Your task to perform on an android device: change keyboard looks Image 0: 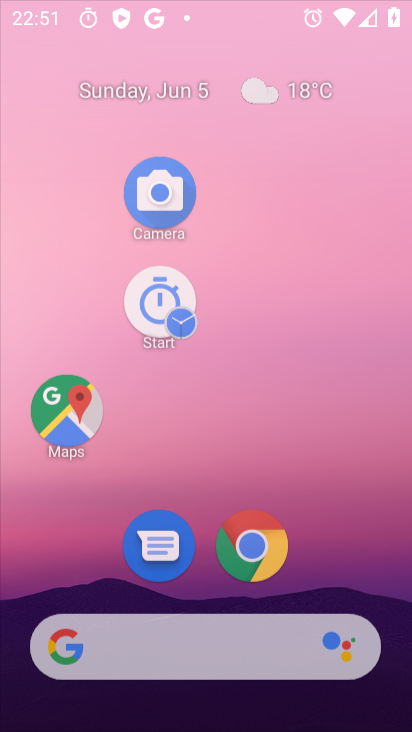
Step 0: click (202, 193)
Your task to perform on an android device: change keyboard looks Image 1: 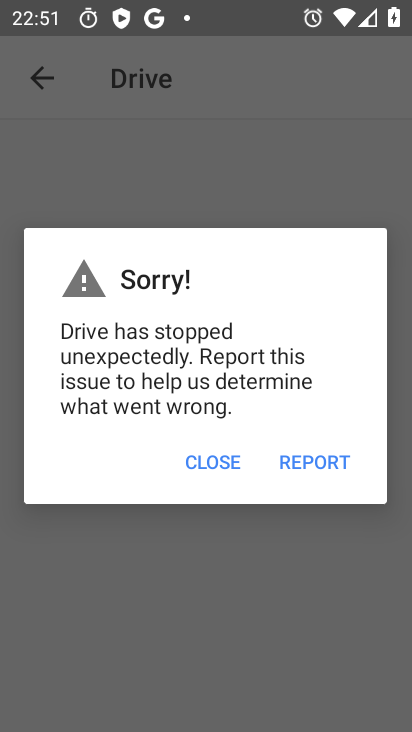
Step 1: click (189, 457)
Your task to perform on an android device: change keyboard looks Image 2: 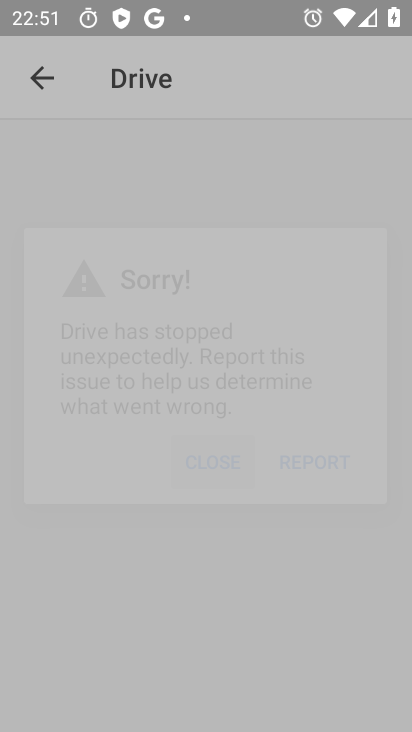
Step 2: click (191, 457)
Your task to perform on an android device: change keyboard looks Image 3: 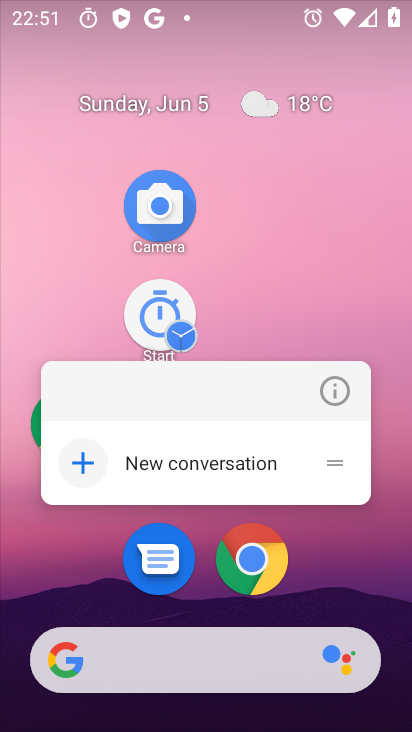
Step 3: drag from (251, 671) to (173, 78)
Your task to perform on an android device: change keyboard looks Image 4: 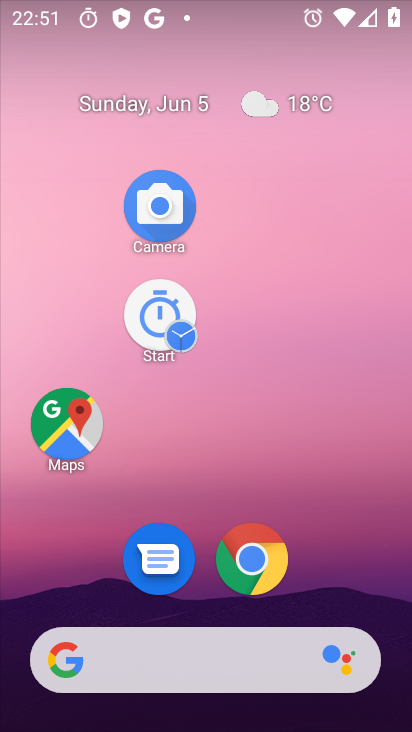
Step 4: drag from (275, 500) to (162, 41)
Your task to perform on an android device: change keyboard looks Image 5: 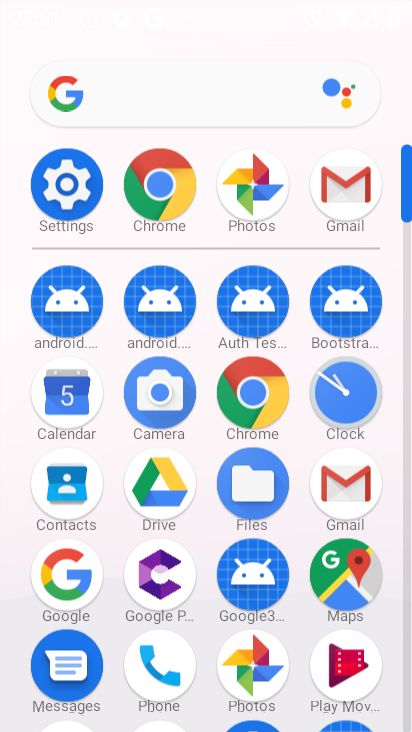
Step 5: drag from (252, 597) to (141, 135)
Your task to perform on an android device: change keyboard looks Image 6: 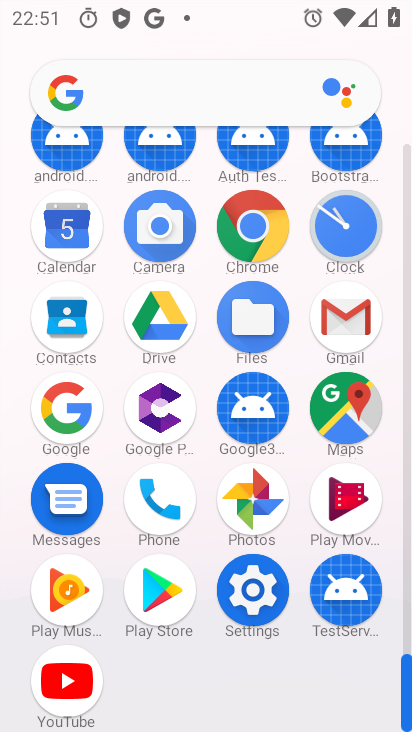
Step 6: click (233, 600)
Your task to perform on an android device: change keyboard looks Image 7: 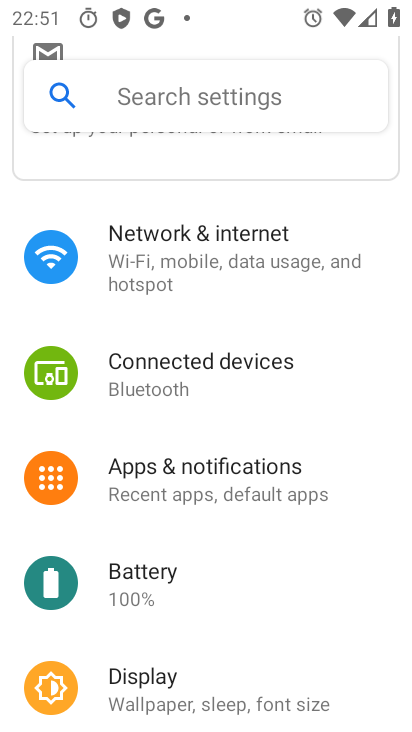
Step 7: drag from (140, 578) to (130, 201)
Your task to perform on an android device: change keyboard looks Image 8: 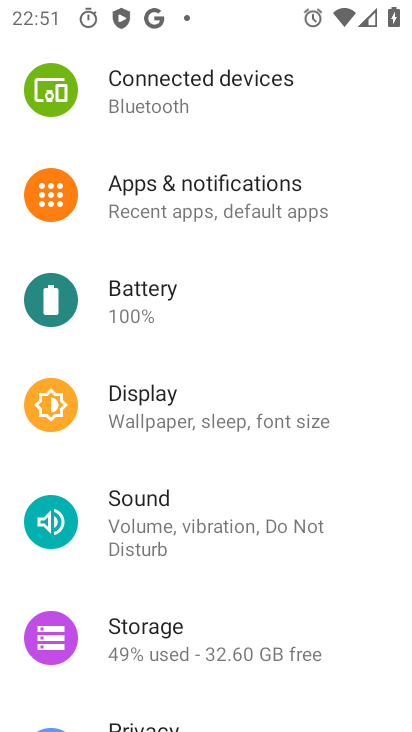
Step 8: drag from (137, 573) to (102, 162)
Your task to perform on an android device: change keyboard looks Image 9: 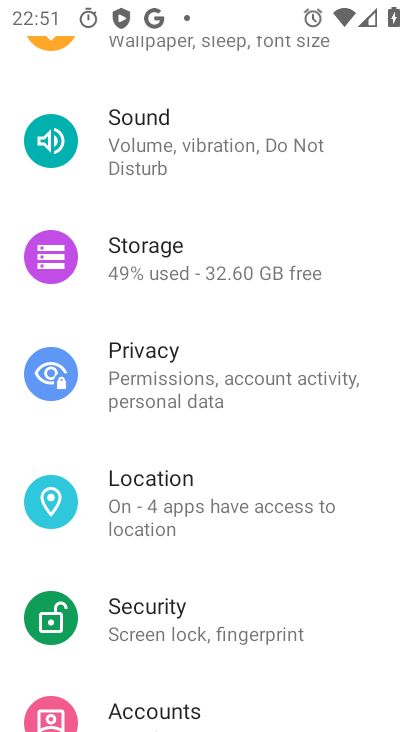
Step 9: drag from (172, 447) to (131, 173)
Your task to perform on an android device: change keyboard looks Image 10: 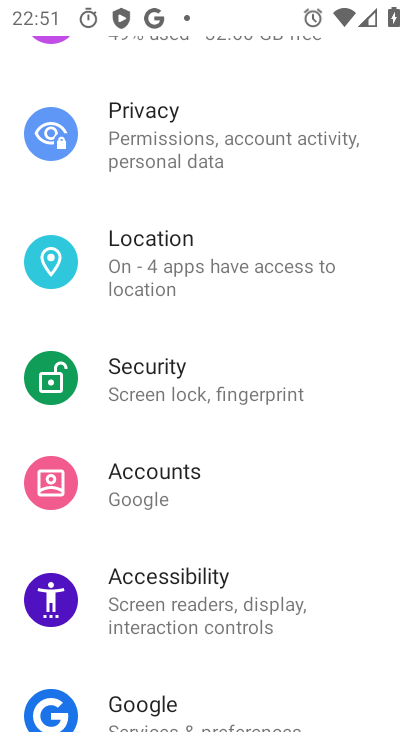
Step 10: drag from (247, 606) to (226, 227)
Your task to perform on an android device: change keyboard looks Image 11: 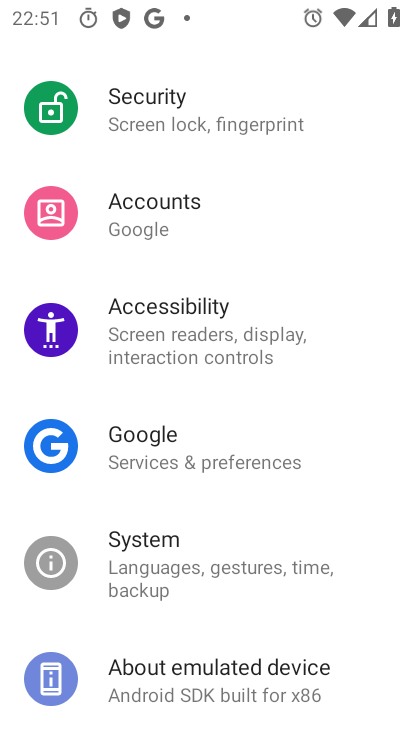
Step 11: drag from (159, 142) to (120, 536)
Your task to perform on an android device: change keyboard looks Image 12: 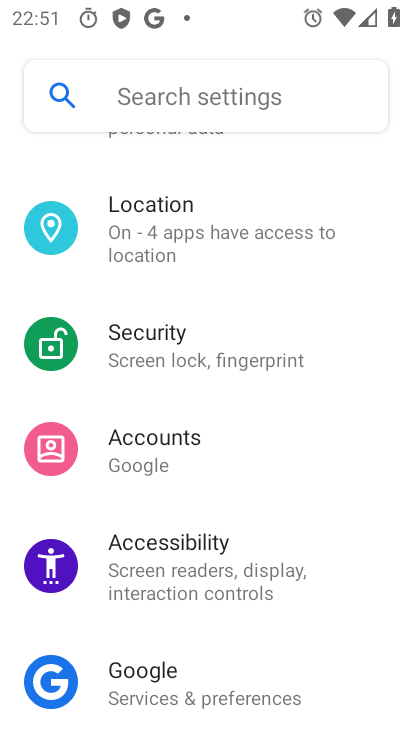
Step 12: drag from (173, 300) to (192, 459)
Your task to perform on an android device: change keyboard looks Image 13: 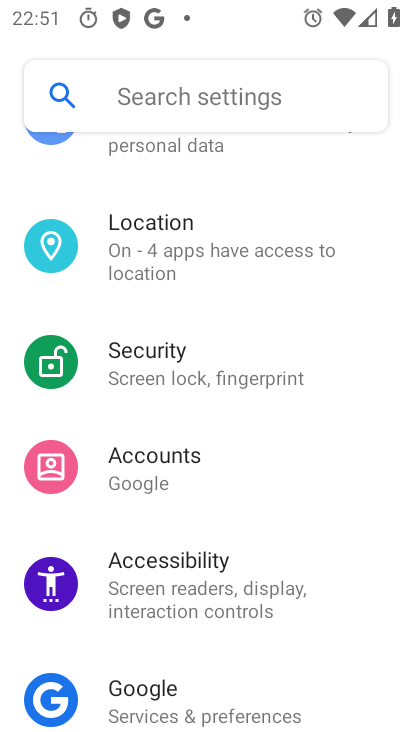
Step 13: drag from (185, 253) to (165, 512)
Your task to perform on an android device: change keyboard looks Image 14: 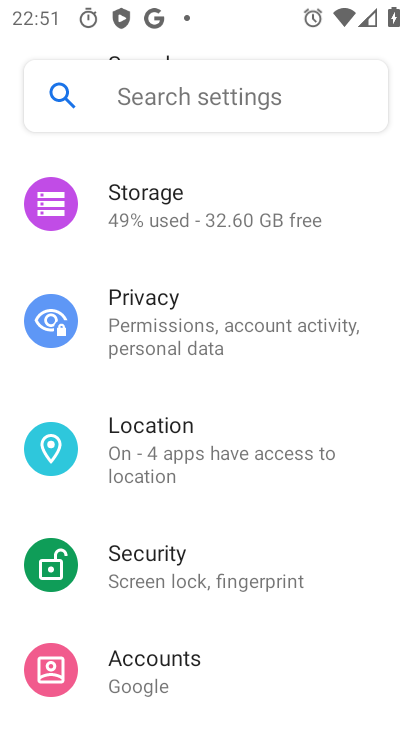
Step 14: drag from (190, 285) to (202, 674)
Your task to perform on an android device: change keyboard looks Image 15: 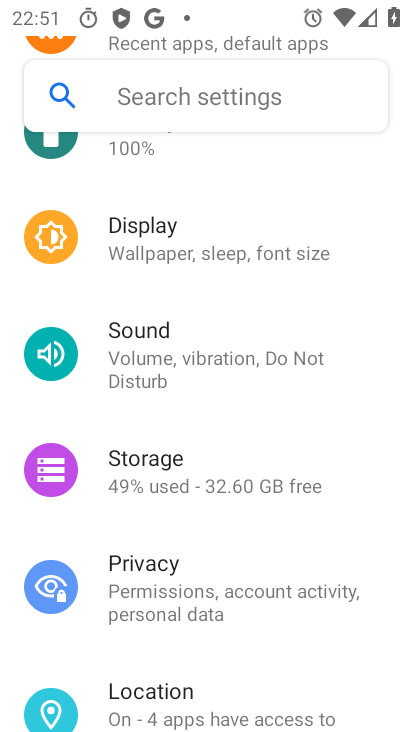
Step 15: drag from (99, 607) to (131, 340)
Your task to perform on an android device: change keyboard looks Image 16: 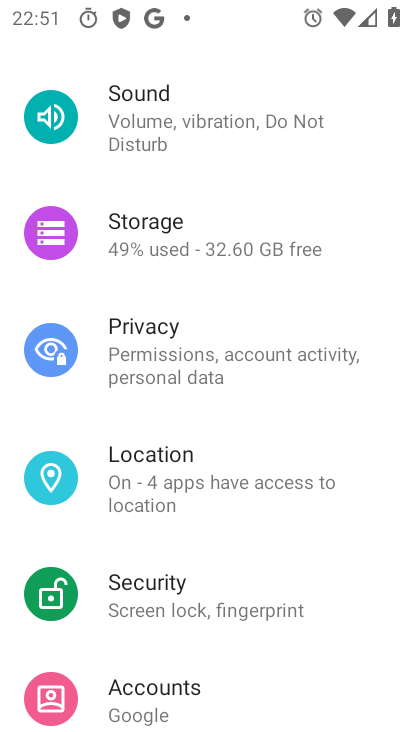
Step 16: drag from (213, 555) to (206, 283)
Your task to perform on an android device: change keyboard looks Image 17: 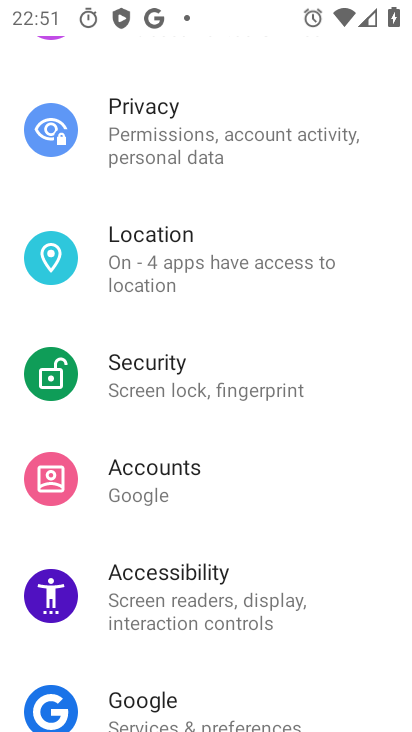
Step 17: drag from (172, 568) to (171, 246)
Your task to perform on an android device: change keyboard looks Image 18: 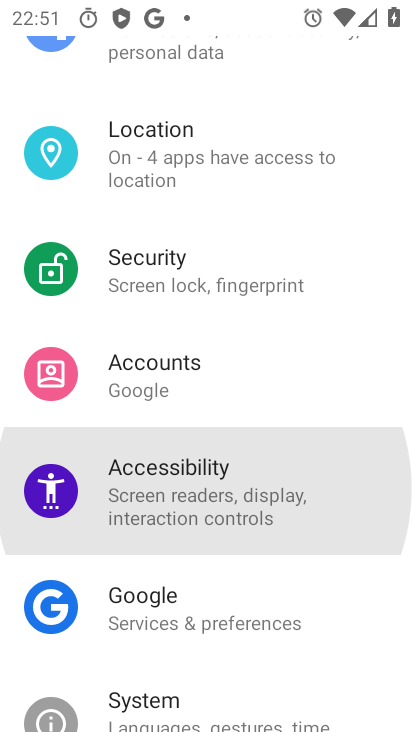
Step 18: drag from (182, 511) to (182, 164)
Your task to perform on an android device: change keyboard looks Image 19: 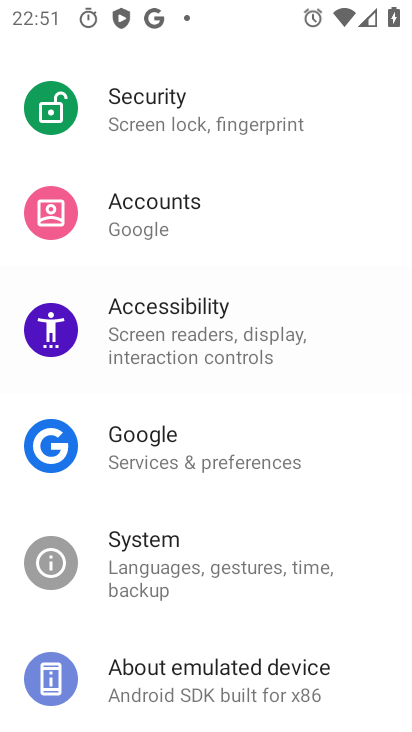
Step 19: drag from (248, 379) to (248, 154)
Your task to perform on an android device: change keyboard looks Image 20: 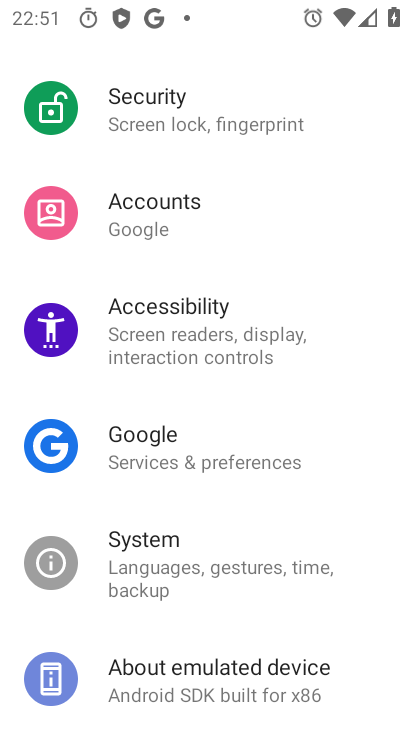
Step 20: click (143, 551)
Your task to perform on an android device: change keyboard looks Image 21: 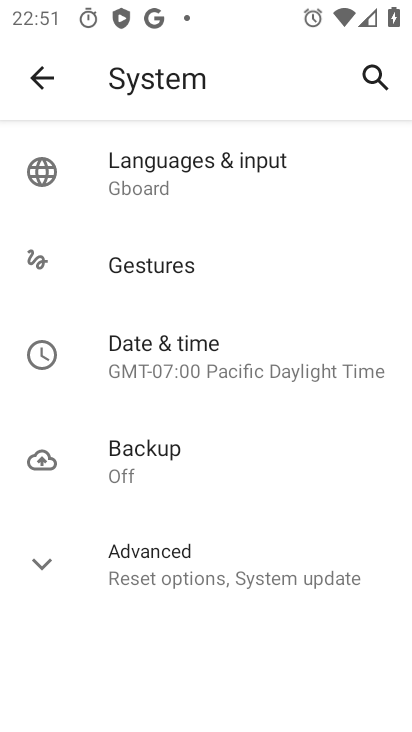
Step 21: click (151, 183)
Your task to perform on an android device: change keyboard looks Image 22: 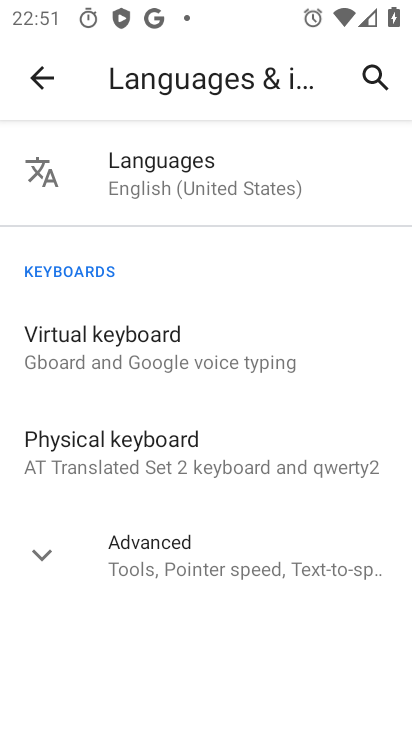
Step 22: click (128, 340)
Your task to perform on an android device: change keyboard looks Image 23: 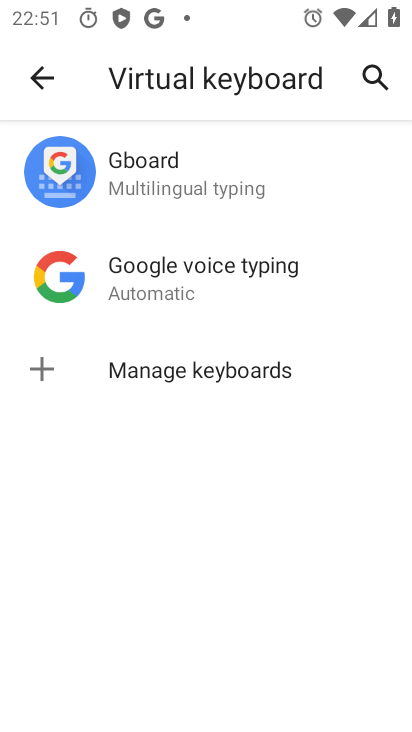
Step 23: click (138, 207)
Your task to perform on an android device: change keyboard looks Image 24: 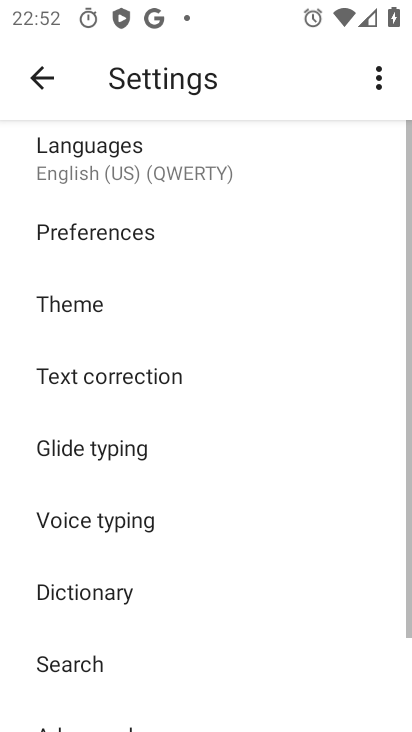
Step 24: click (91, 308)
Your task to perform on an android device: change keyboard looks Image 25: 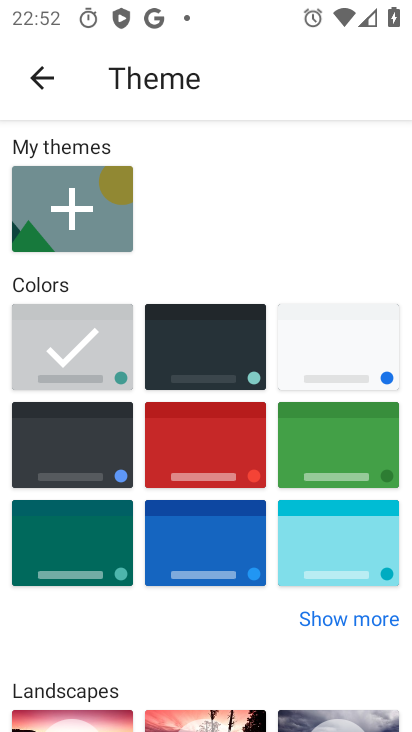
Step 25: click (197, 420)
Your task to perform on an android device: change keyboard looks Image 26: 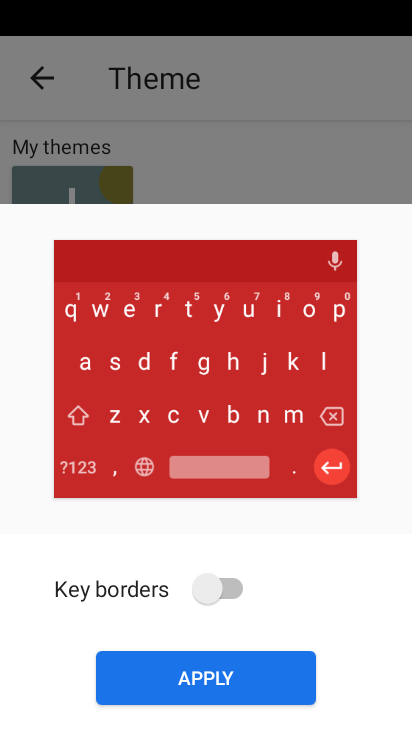
Step 26: click (233, 676)
Your task to perform on an android device: change keyboard looks Image 27: 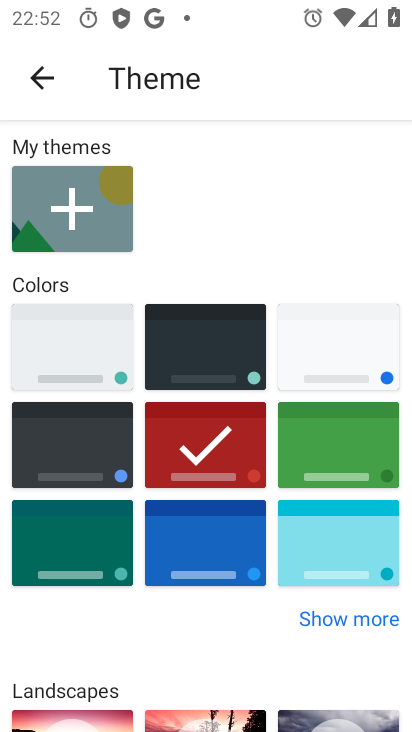
Step 27: task complete